Your task to perform on an android device: open the mobile data screen to see how much data has been used Image 0: 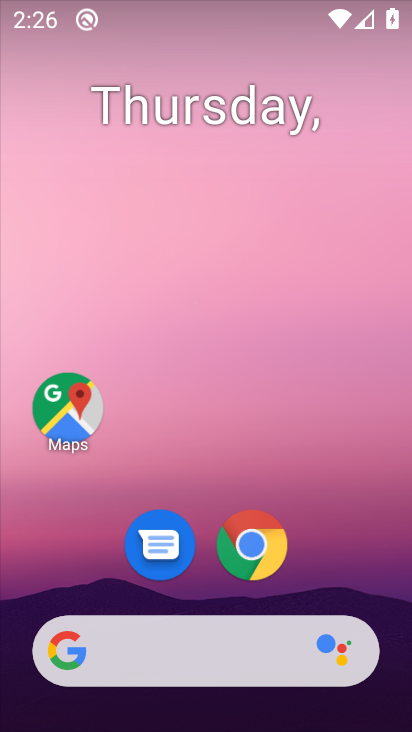
Step 0: press home button
Your task to perform on an android device: open the mobile data screen to see how much data has been used Image 1: 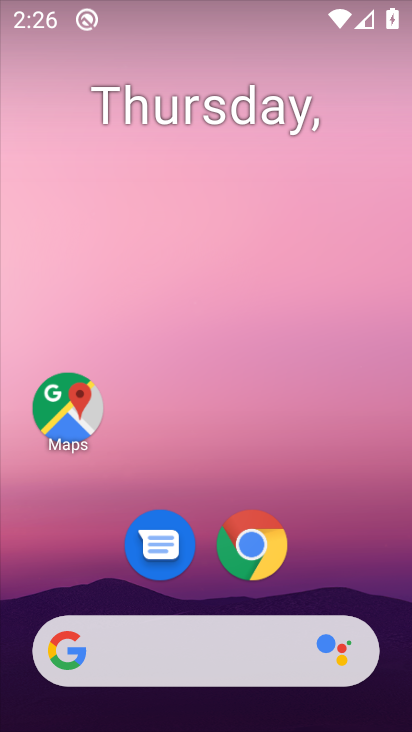
Step 1: drag from (169, 621) to (221, 83)
Your task to perform on an android device: open the mobile data screen to see how much data has been used Image 2: 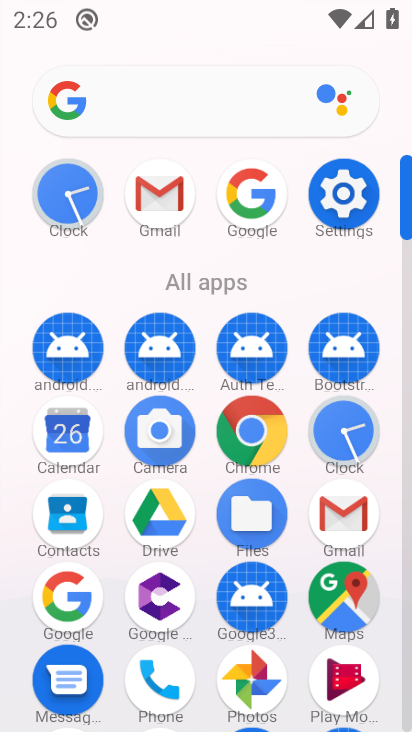
Step 2: click (348, 205)
Your task to perform on an android device: open the mobile data screen to see how much data has been used Image 3: 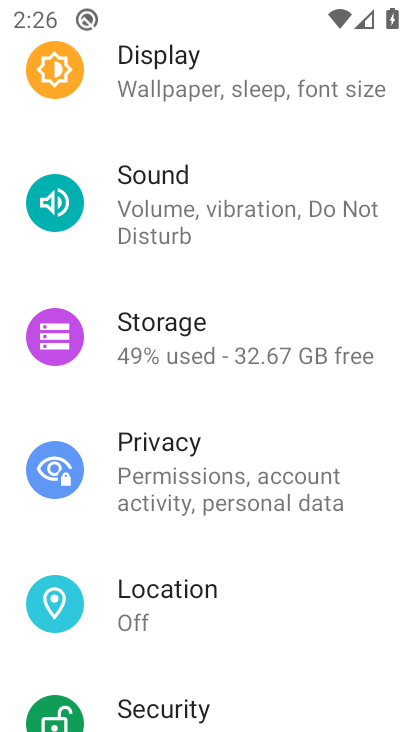
Step 3: drag from (185, 169) to (235, 725)
Your task to perform on an android device: open the mobile data screen to see how much data has been used Image 4: 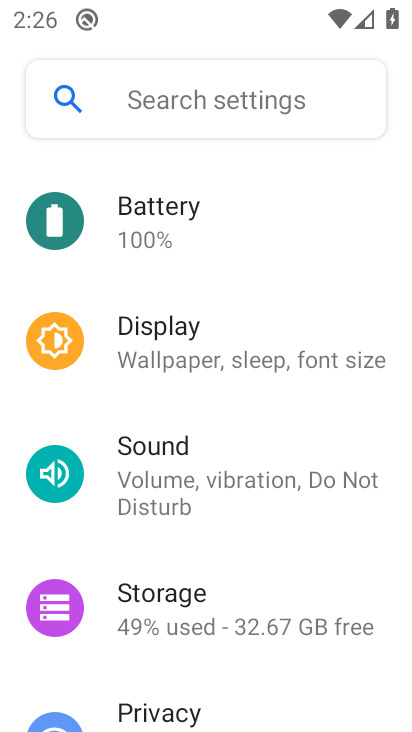
Step 4: drag from (268, 168) to (230, 618)
Your task to perform on an android device: open the mobile data screen to see how much data has been used Image 5: 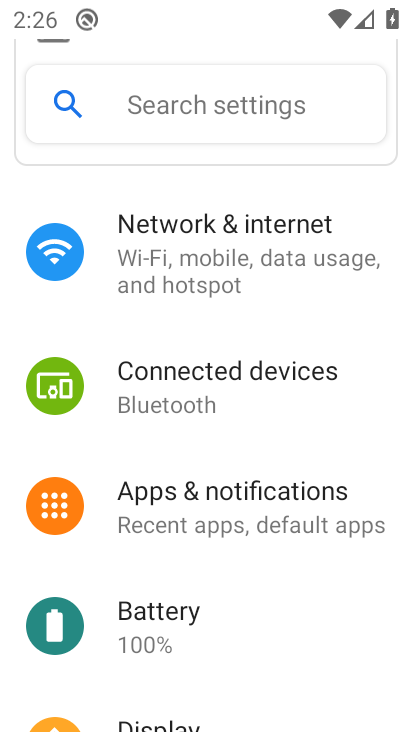
Step 5: click (254, 261)
Your task to perform on an android device: open the mobile data screen to see how much data has been used Image 6: 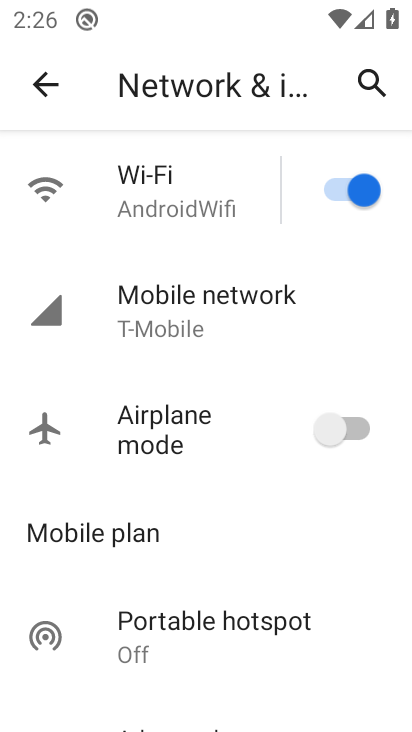
Step 6: click (229, 311)
Your task to perform on an android device: open the mobile data screen to see how much data has been used Image 7: 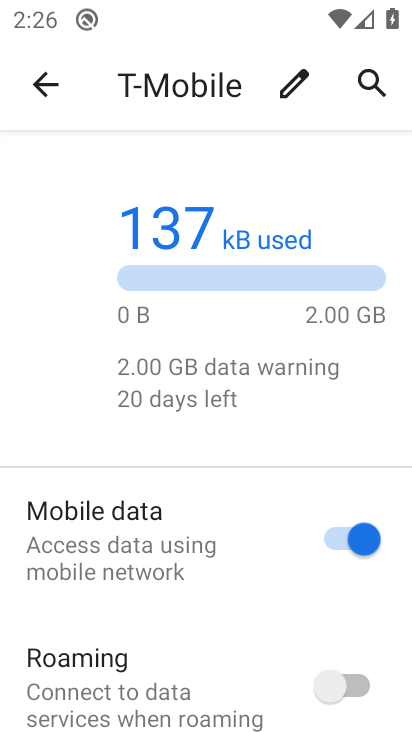
Step 7: task complete